Your task to perform on an android device: Go to Maps Image 0: 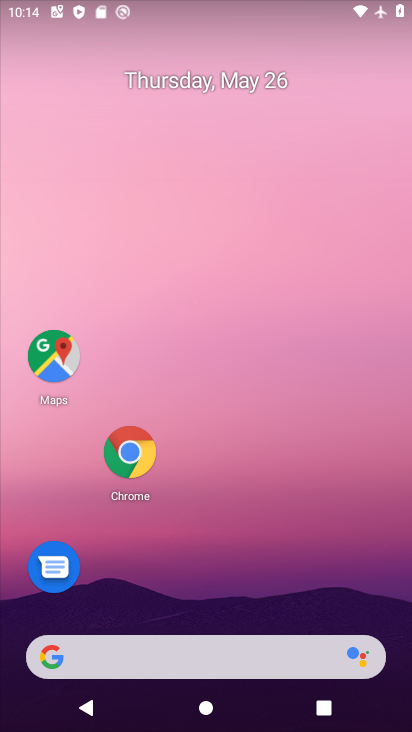
Step 0: click (53, 360)
Your task to perform on an android device: Go to Maps Image 1: 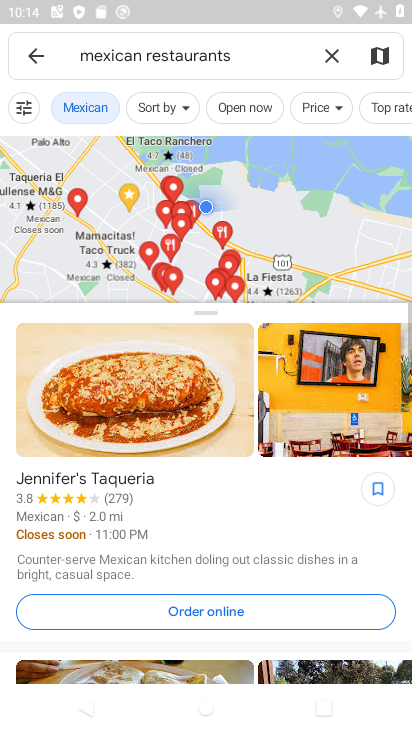
Step 1: click (32, 58)
Your task to perform on an android device: Go to Maps Image 2: 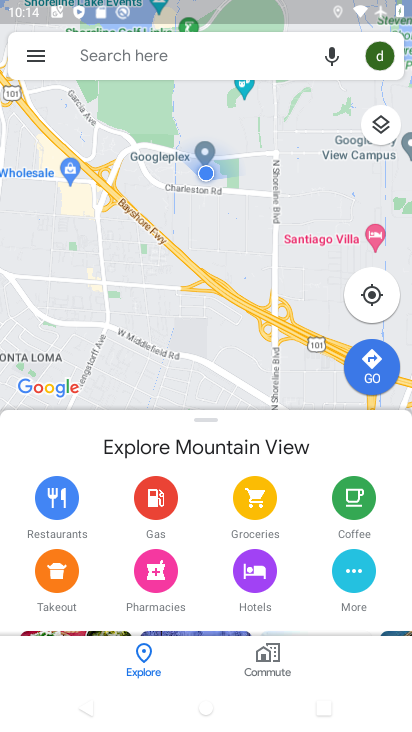
Step 2: task complete